Your task to perform on an android device: Open Chrome and go to the settings page Image 0: 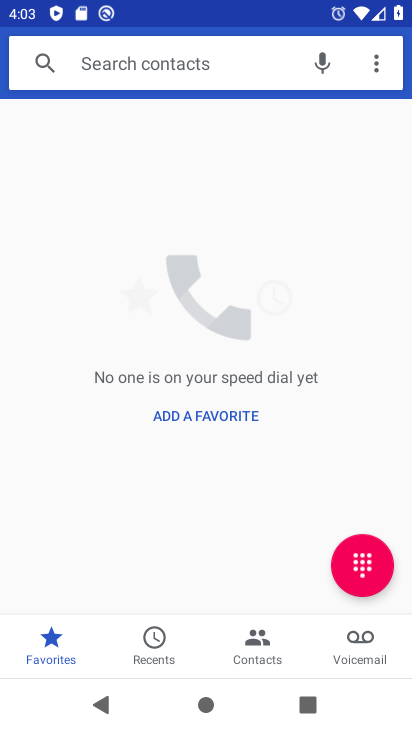
Step 0: press home button
Your task to perform on an android device: Open Chrome and go to the settings page Image 1: 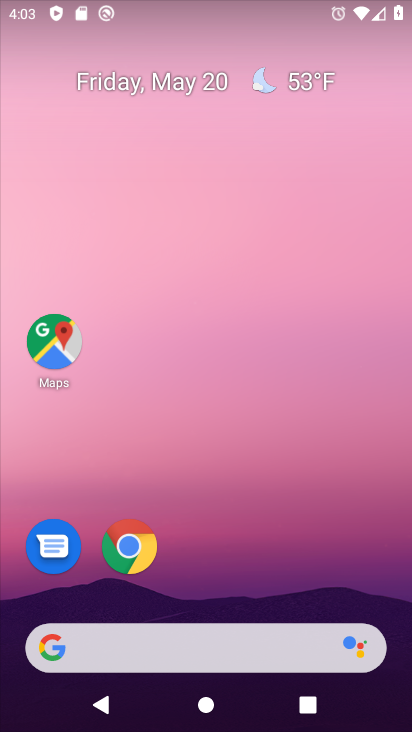
Step 1: click (129, 540)
Your task to perform on an android device: Open Chrome and go to the settings page Image 2: 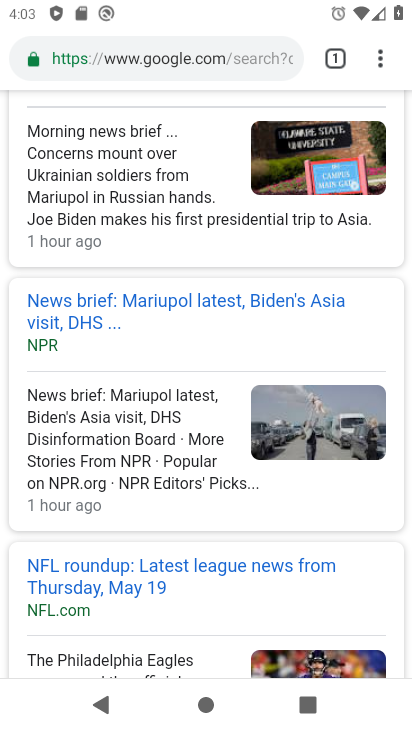
Step 2: task complete